Your task to perform on an android device: Open the calendar and show me this week's events? Image 0: 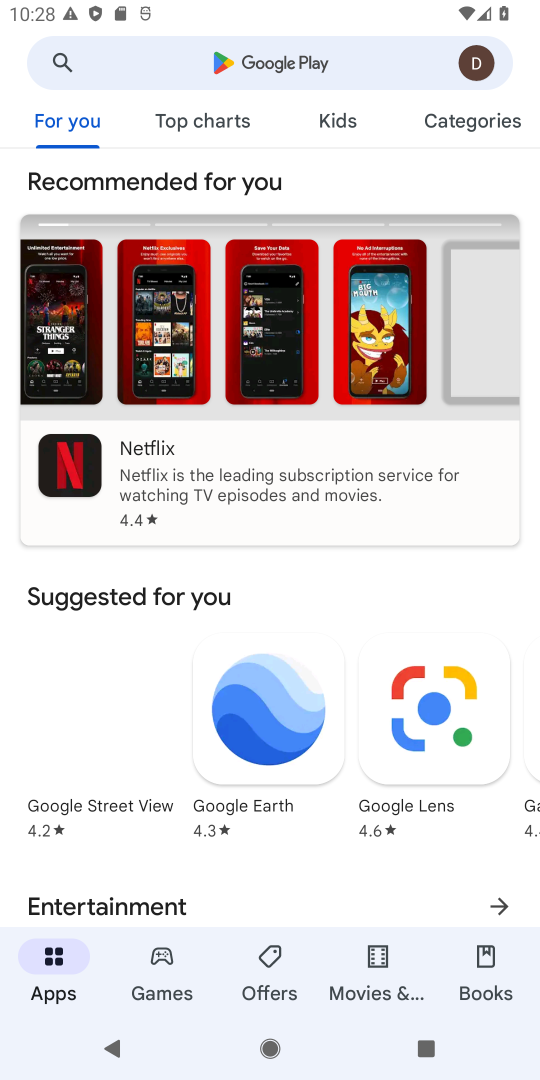
Step 0: press back button
Your task to perform on an android device: Open the calendar and show me this week's events? Image 1: 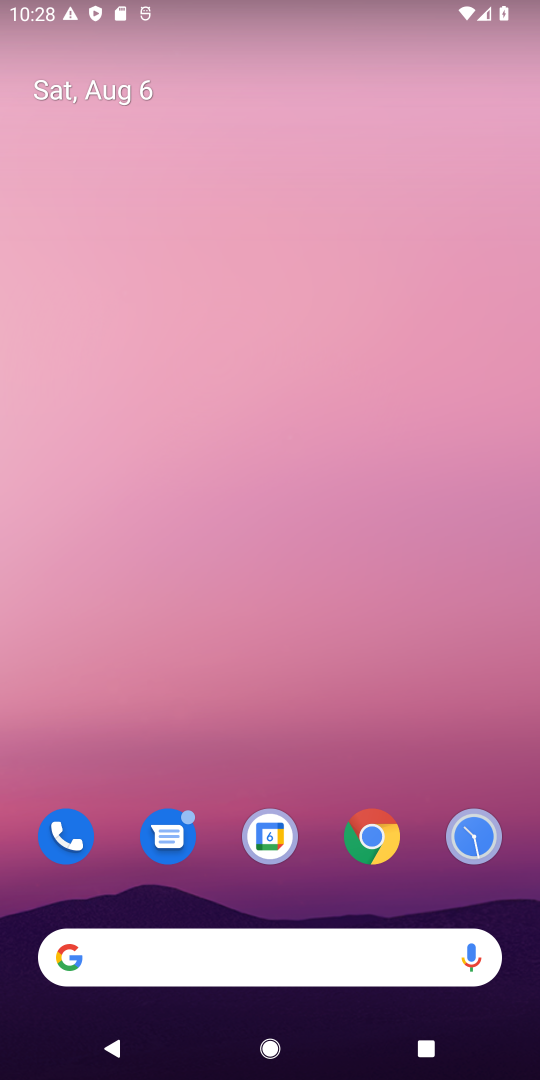
Step 1: click (279, 833)
Your task to perform on an android device: Open the calendar and show me this week's events? Image 2: 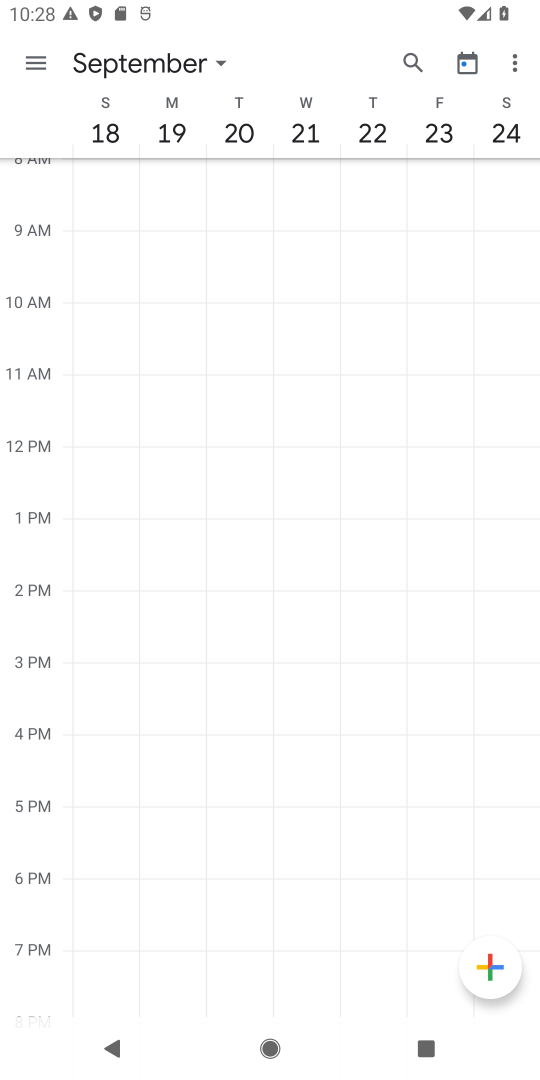
Step 2: click (112, 60)
Your task to perform on an android device: Open the calendar and show me this week's events? Image 3: 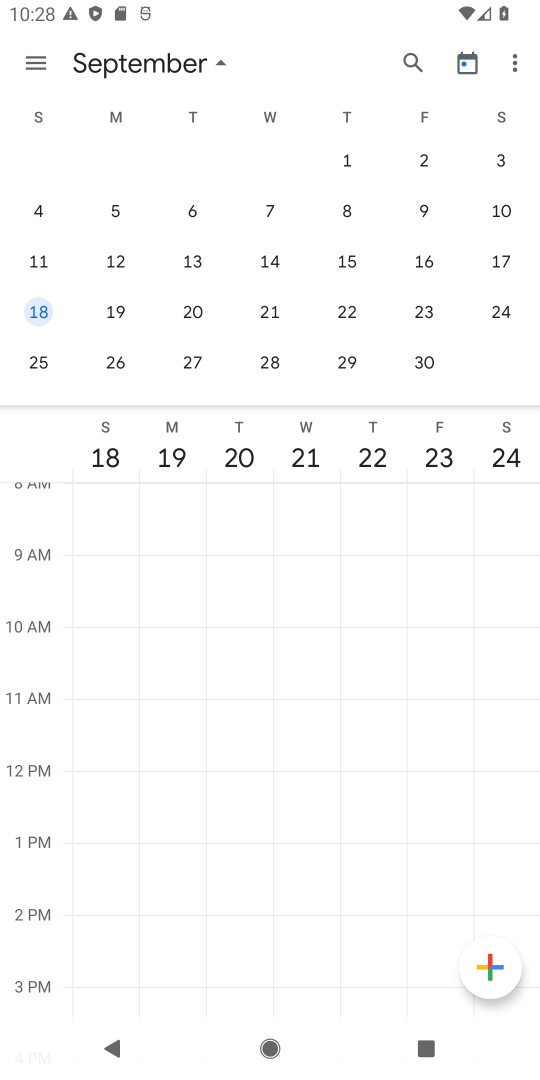
Step 3: drag from (308, 166) to (513, 176)
Your task to perform on an android device: Open the calendar and show me this week's events? Image 4: 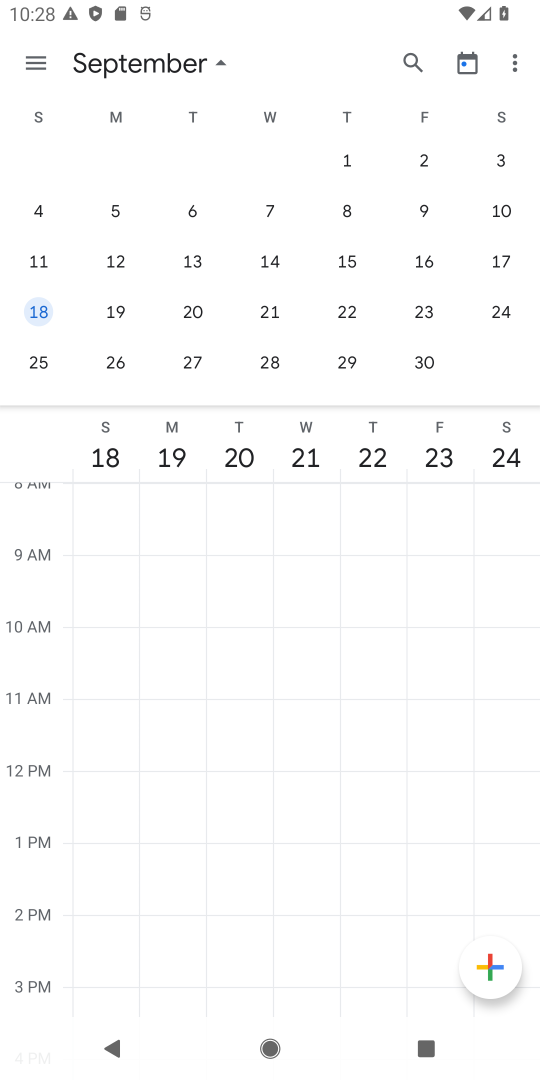
Step 4: drag from (132, 264) to (514, 163)
Your task to perform on an android device: Open the calendar and show me this week's events? Image 5: 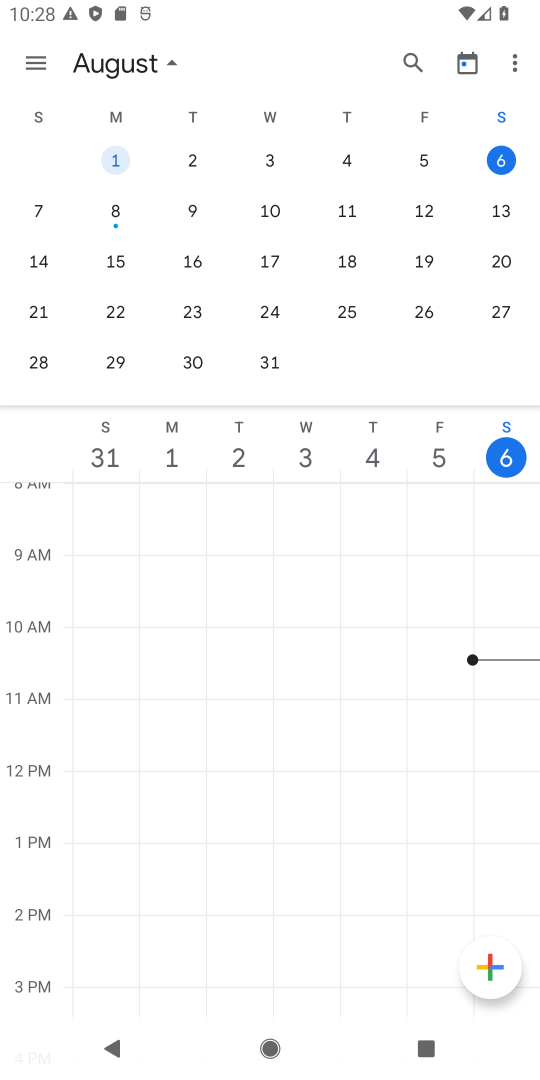
Step 5: click (107, 159)
Your task to perform on an android device: Open the calendar and show me this week's events? Image 6: 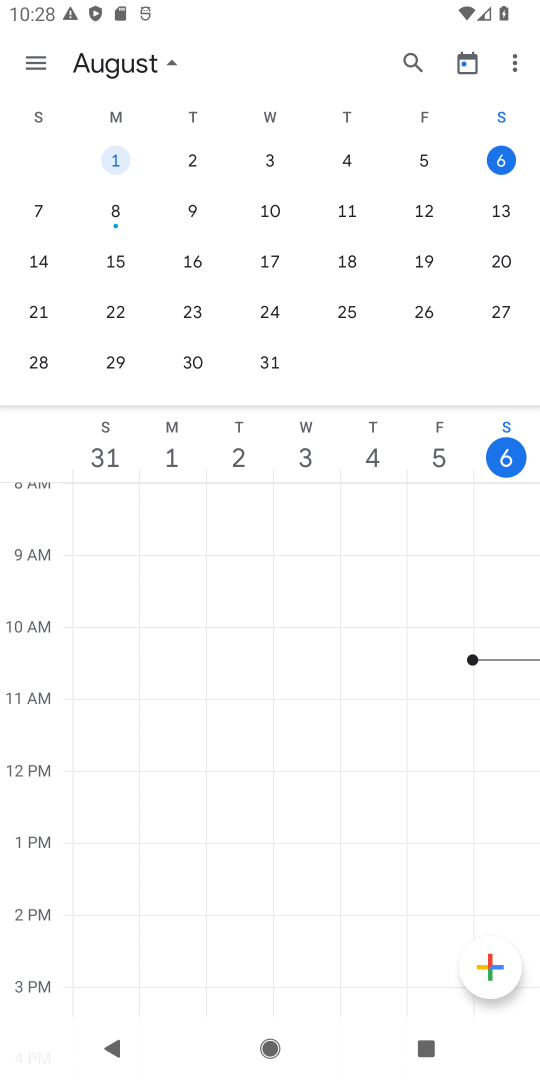
Step 6: click (107, 159)
Your task to perform on an android device: Open the calendar and show me this week's events? Image 7: 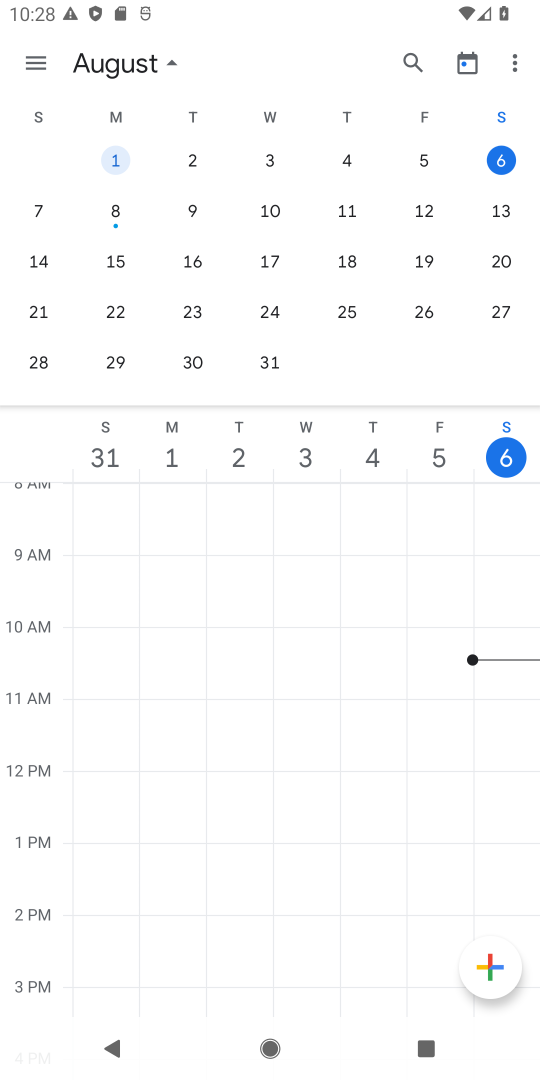
Step 7: task complete